Your task to perform on an android device: Search for seafood restaurants on Google Maps Image 0: 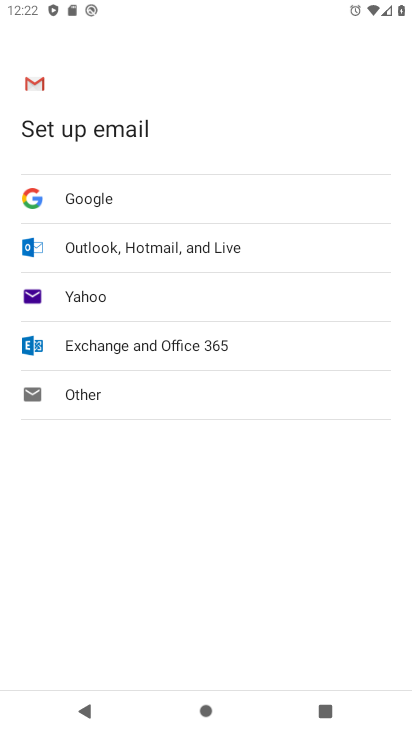
Step 0: press home button
Your task to perform on an android device: Search for seafood restaurants on Google Maps Image 1: 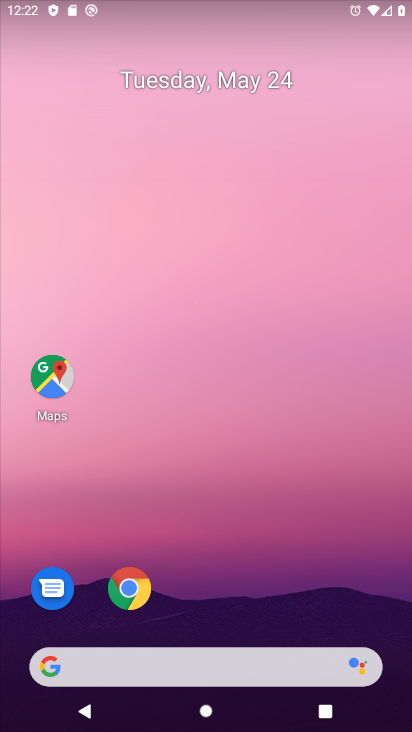
Step 1: click (58, 382)
Your task to perform on an android device: Search for seafood restaurants on Google Maps Image 2: 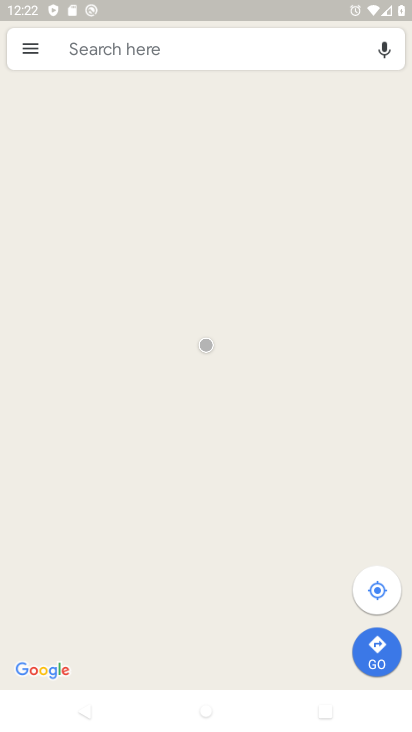
Step 2: click (170, 64)
Your task to perform on an android device: Search for seafood restaurants on Google Maps Image 3: 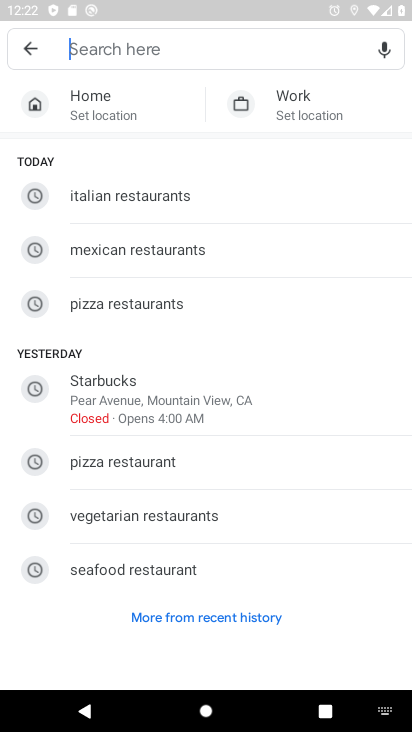
Step 3: type "seafood restaurants"
Your task to perform on an android device: Search for seafood restaurants on Google Maps Image 4: 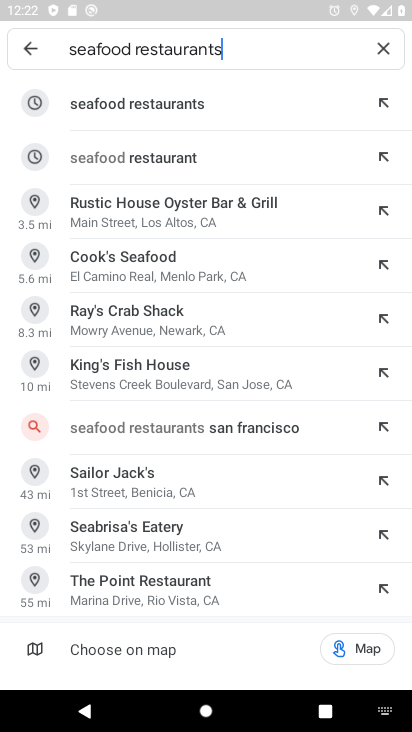
Step 4: click (229, 108)
Your task to perform on an android device: Search for seafood restaurants on Google Maps Image 5: 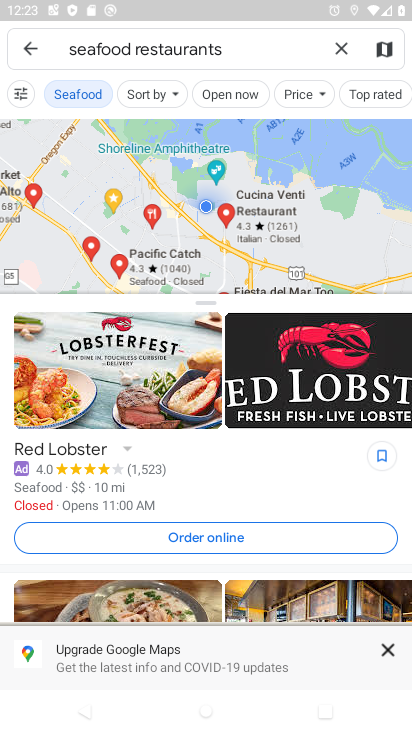
Step 5: click (389, 655)
Your task to perform on an android device: Search for seafood restaurants on Google Maps Image 6: 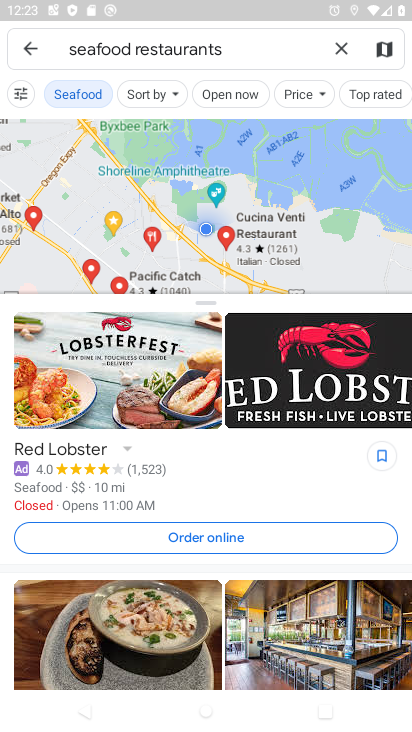
Step 6: task complete